Your task to perform on an android device: Open privacy settings Image 0: 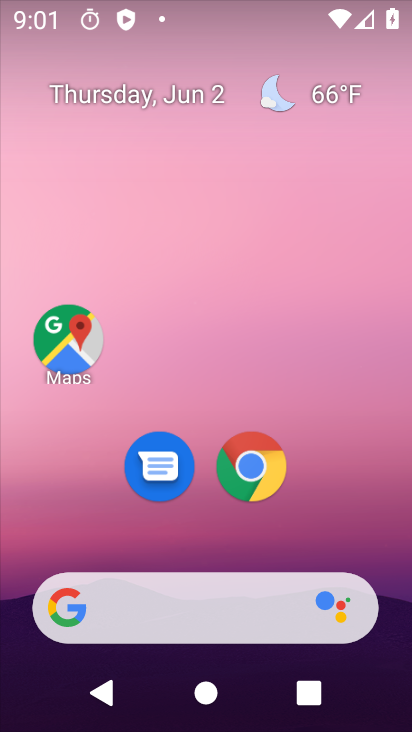
Step 0: drag from (10, 654) to (338, 178)
Your task to perform on an android device: Open privacy settings Image 1: 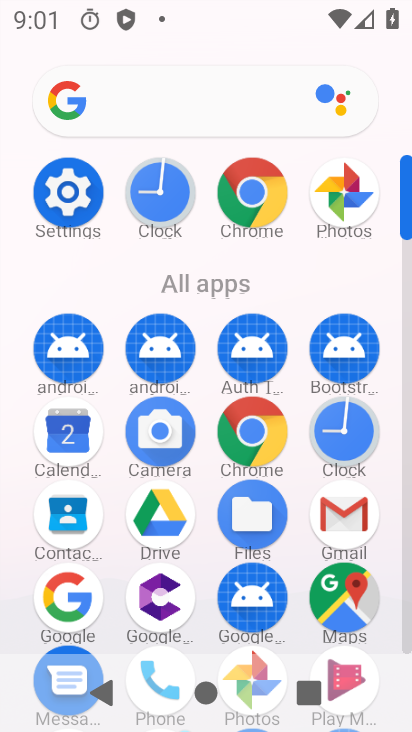
Step 1: click (72, 212)
Your task to perform on an android device: Open privacy settings Image 2: 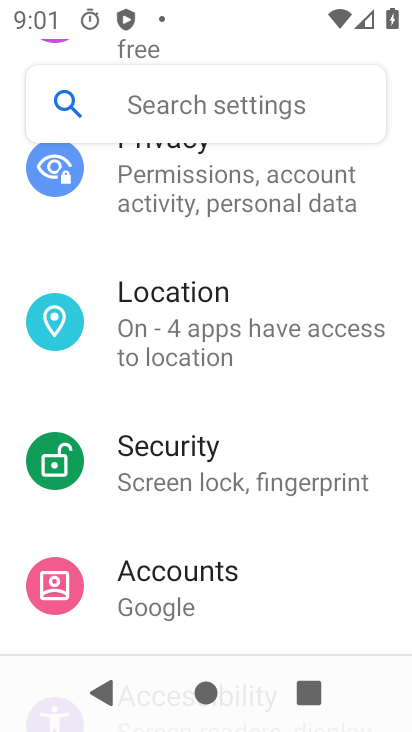
Step 2: drag from (239, 209) to (149, 604)
Your task to perform on an android device: Open privacy settings Image 3: 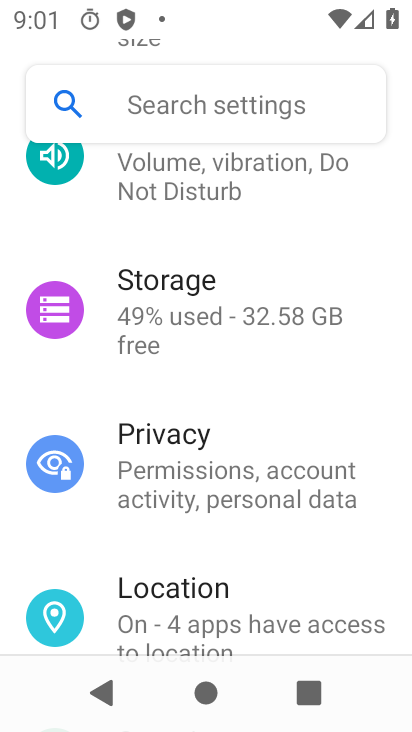
Step 3: click (187, 473)
Your task to perform on an android device: Open privacy settings Image 4: 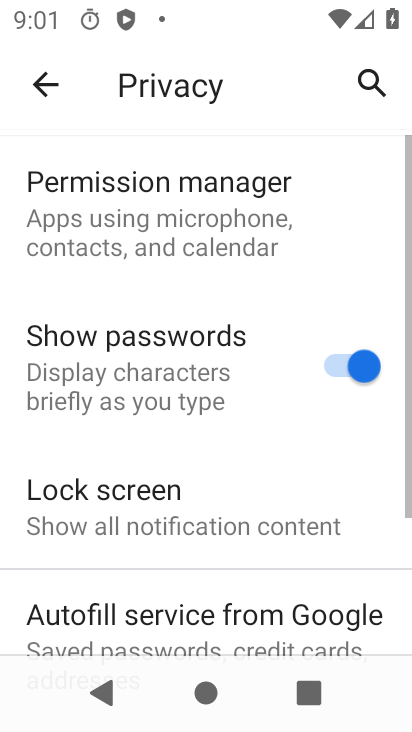
Step 4: task complete